Your task to perform on an android device: snooze an email in the gmail app Image 0: 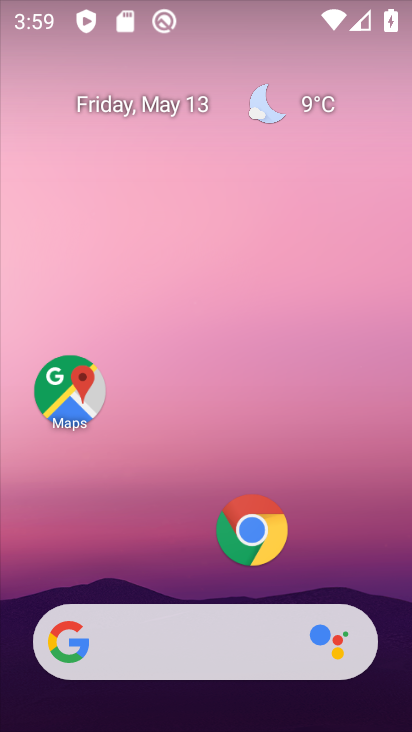
Step 0: press home button
Your task to perform on an android device: snooze an email in the gmail app Image 1: 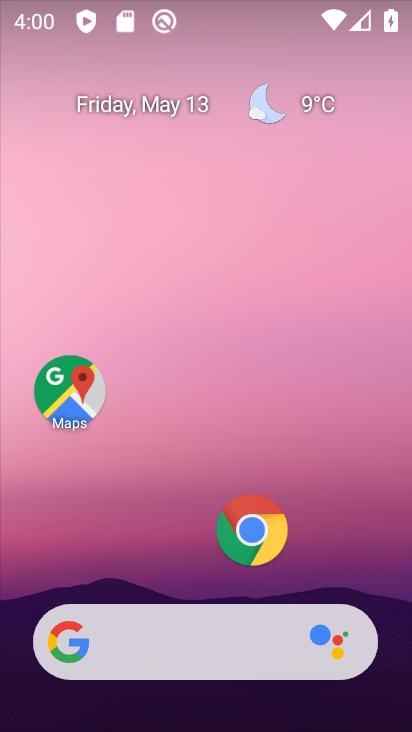
Step 1: drag from (192, 570) to (245, 10)
Your task to perform on an android device: snooze an email in the gmail app Image 2: 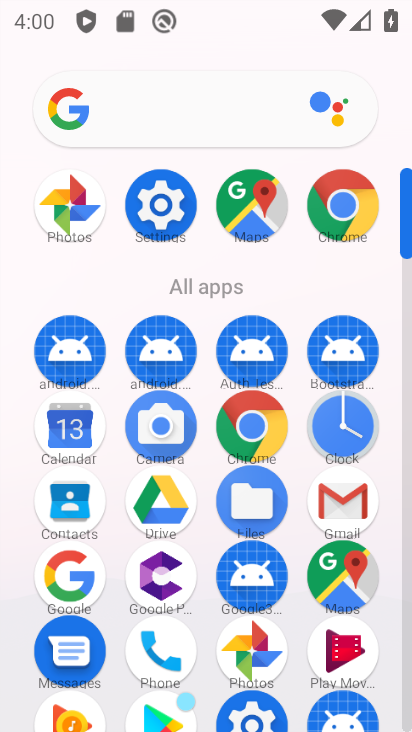
Step 2: click (343, 494)
Your task to perform on an android device: snooze an email in the gmail app Image 3: 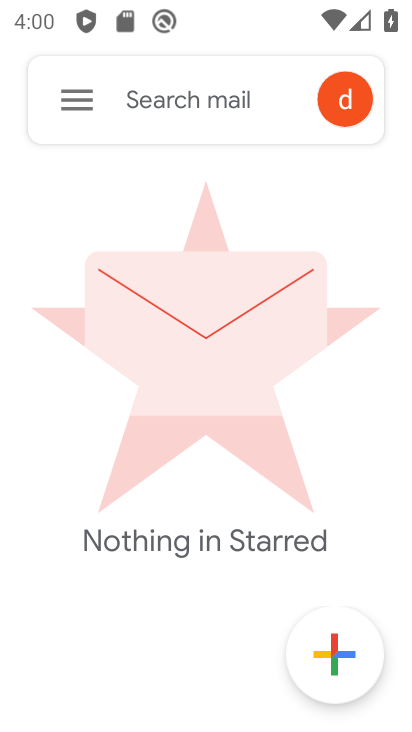
Step 3: click (68, 95)
Your task to perform on an android device: snooze an email in the gmail app Image 4: 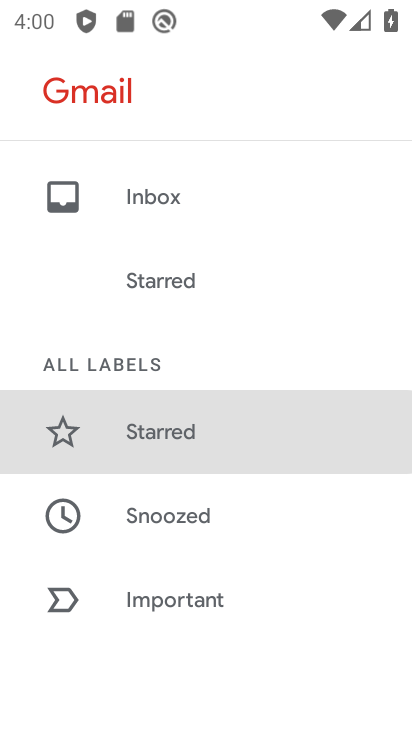
Step 4: click (105, 502)
Your task to perform on an android device: snooze an email in the gmail app Image 5: 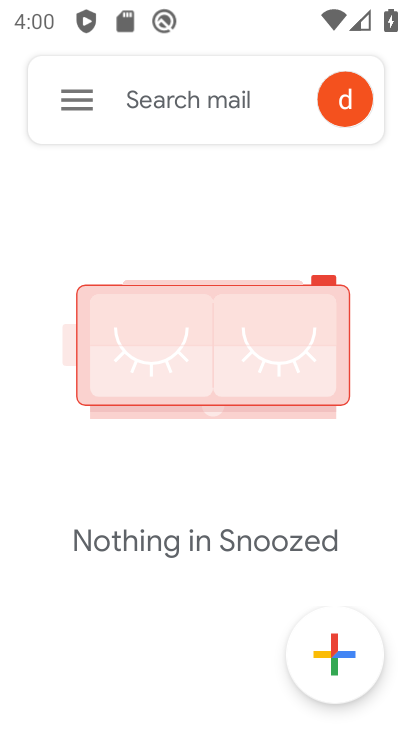
Step 5: click (66, 100)
Your task to perform on an android device: snooze an email in the gmail app Image 6: 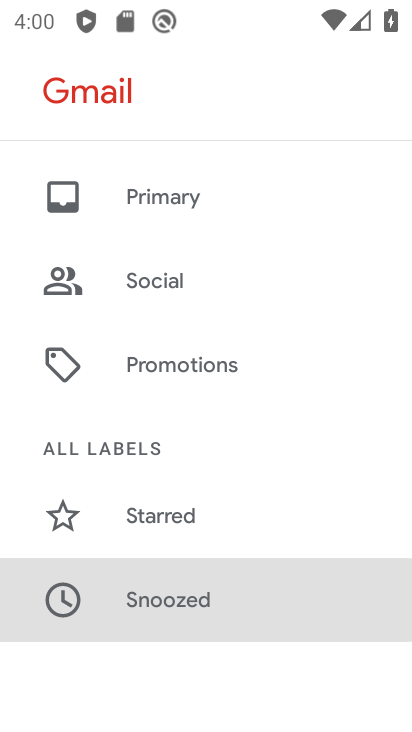
Step 6: drag from (150, 523) to (159, 154)
Your task to perform on an android device: snooze an email in the gmail app Image 7: 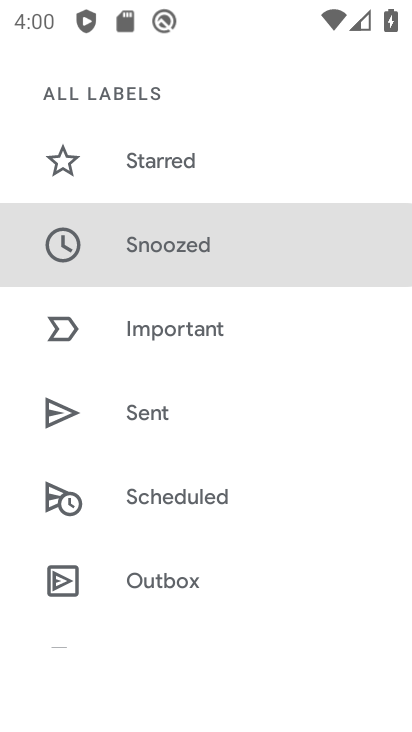
Step 7: drag from (195, 585) to (189, 232)
Your task to perform on an android device: snooze an email in the gmail app Image 8: 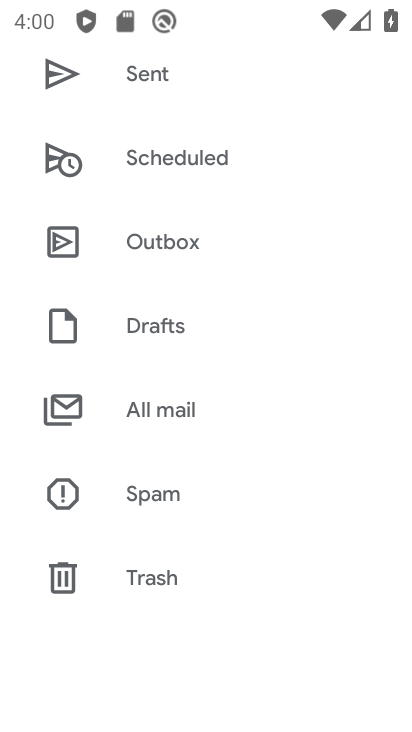
Step 8: click (162, 405)
Your task to perform on an android device: snooze an email in the gmail app Image 9: 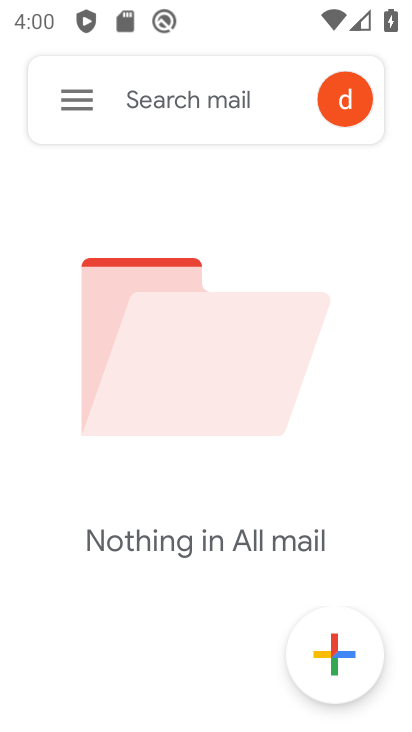
Step 9: task complete